Your task to perform on an android device: check battery use Image 0: 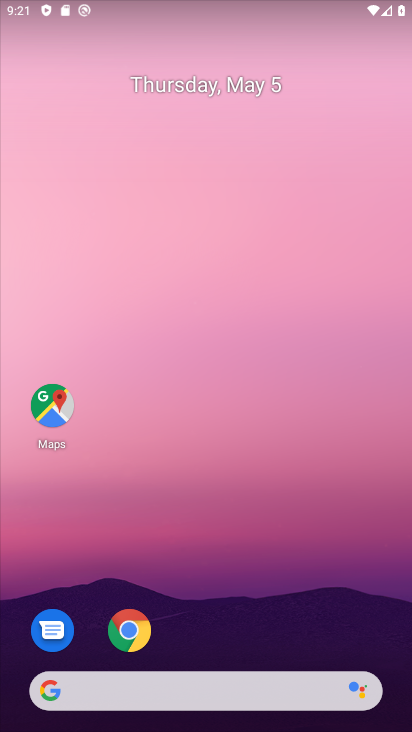
Step 0: drag from (180, 601) to (150, 187)
Your task to perform on an android device: check battery use Image 1: 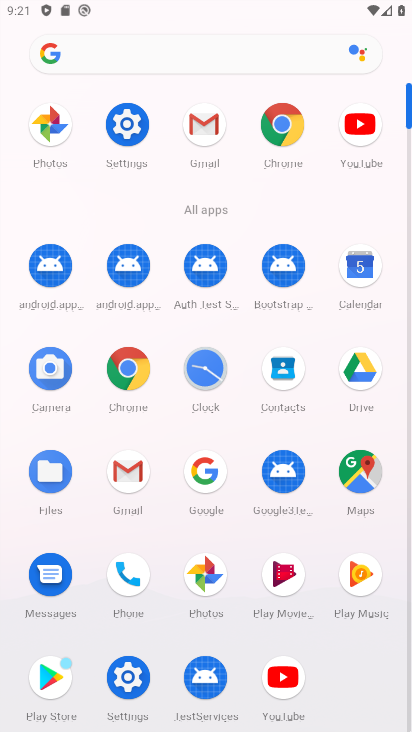
Step 1: click (119, 137)
Your task to perform on an android device: check battery use Image 2: 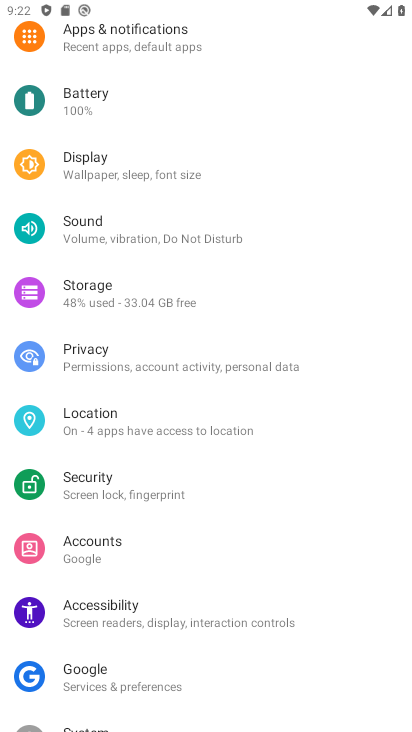
Step 2: click (115, 105)
Your task to perform on an android device: check battery use Image 3: 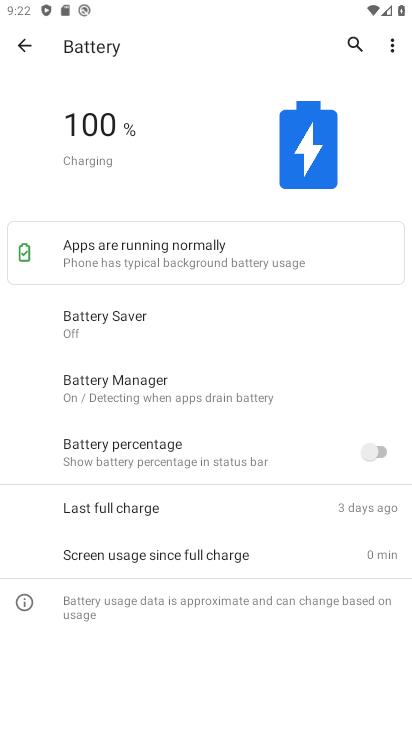
Step 3: task complete